Your task to perform on an android device: Open sound settings Image 0: 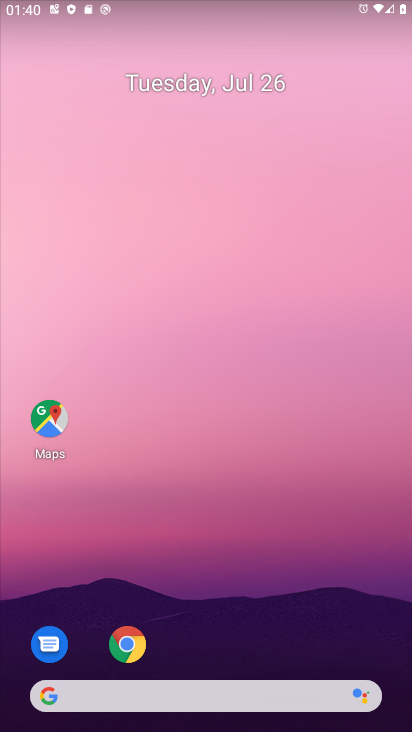
Step 0: drag from (210, 627) to (195, 221)
Your task to perform on an android device: Open sound settings Image 1: 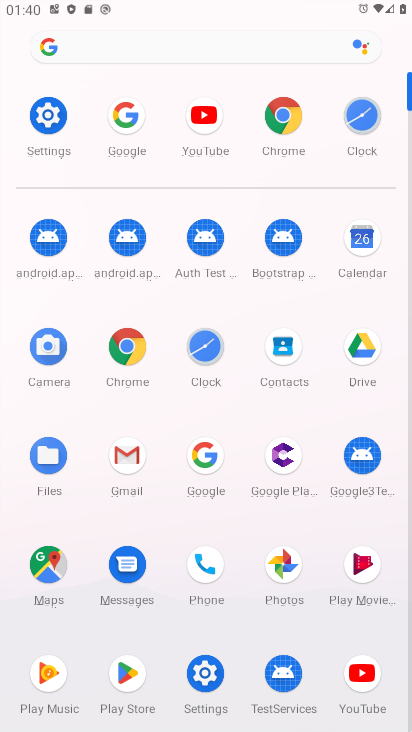
Step 1: click (41, 102)
Your task to perform on an android device: Open sound settings Image 2: 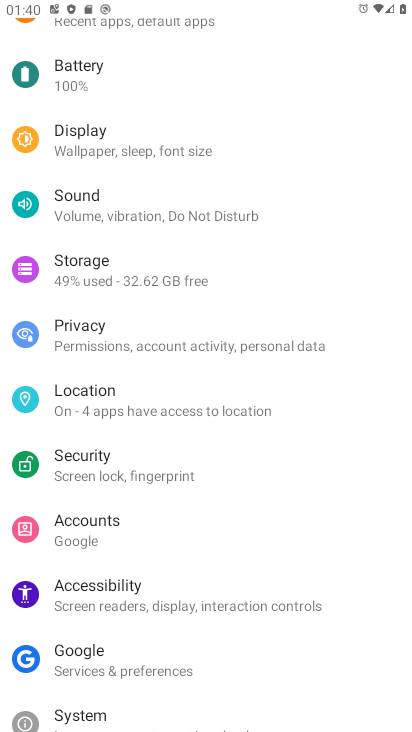
Step 2: click (130, 220)
Your task to perform on an android device: Open sound settings Image 3: 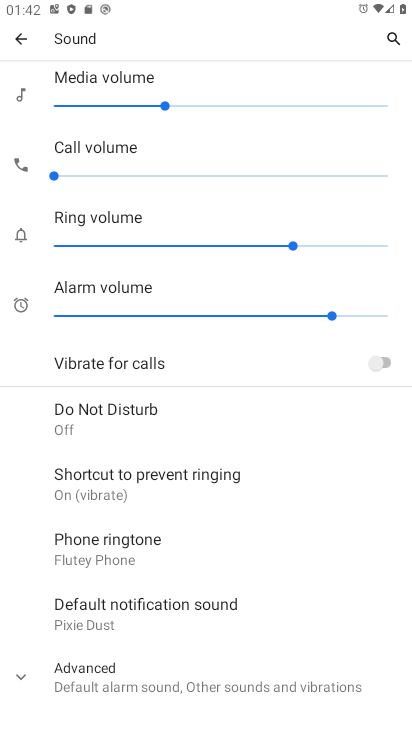
Step 3: task complete